Your task to perform on an android device: open app "Move to iOS" Image 0: 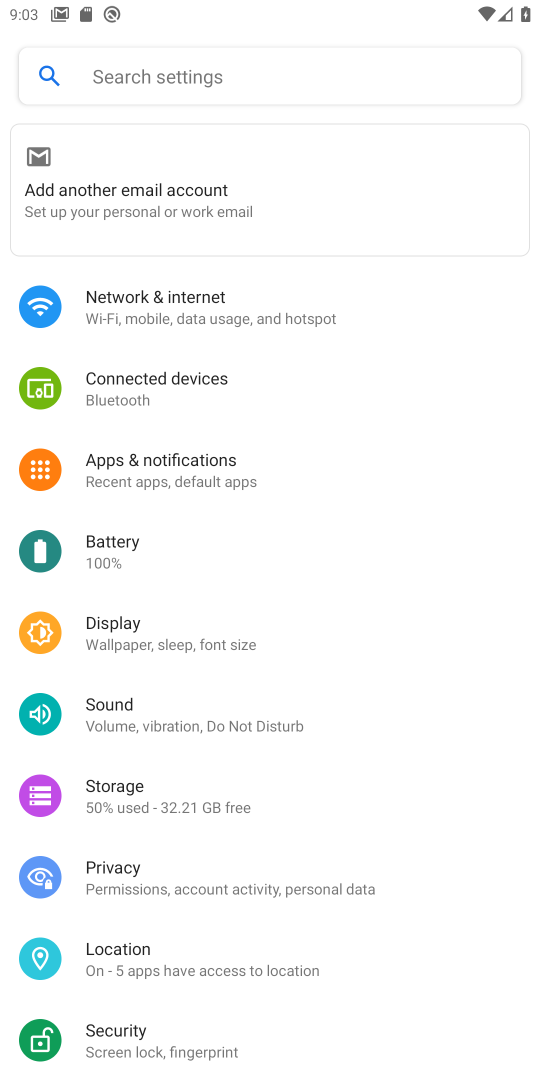
Step 0: press back button
Your task to perform on an android device: open app "Move to iOS" Image 1: 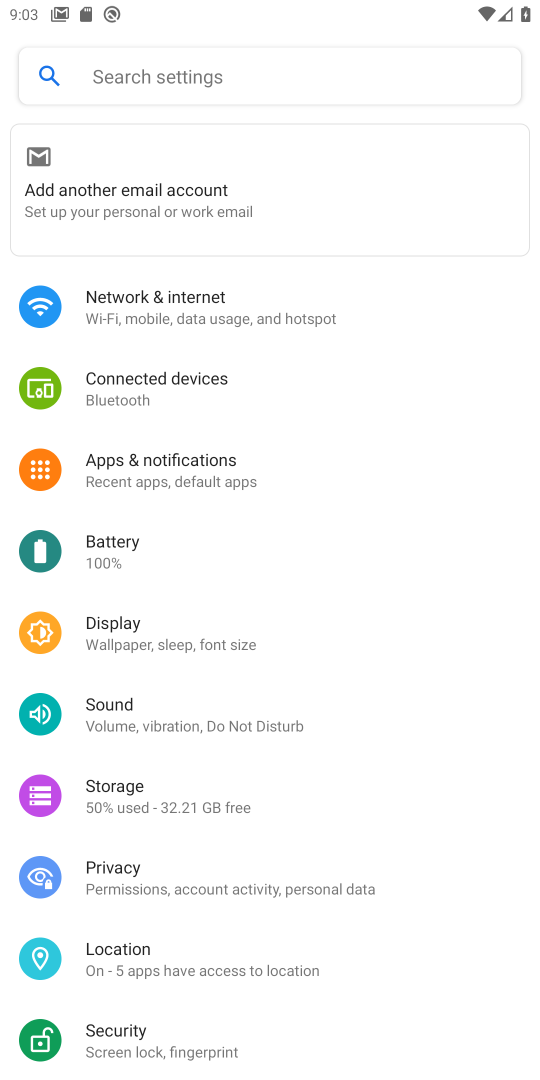
Step 1: press back button
Your task to perform on an android device: open app "Move to iOS" Image 2: 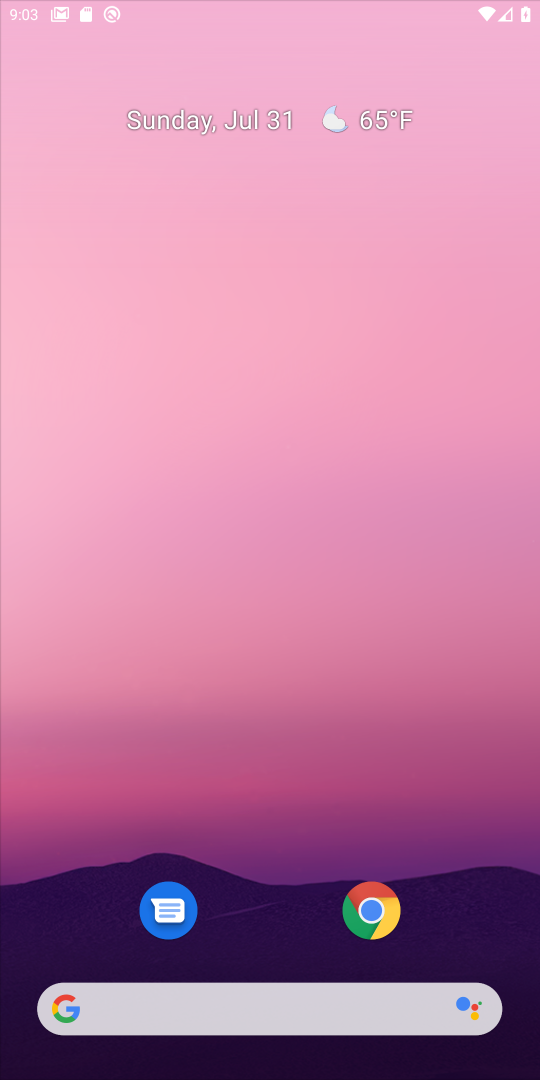
Step 2: press back button
Your task to perform on an android device: open app "Move to iOS" Image 3: 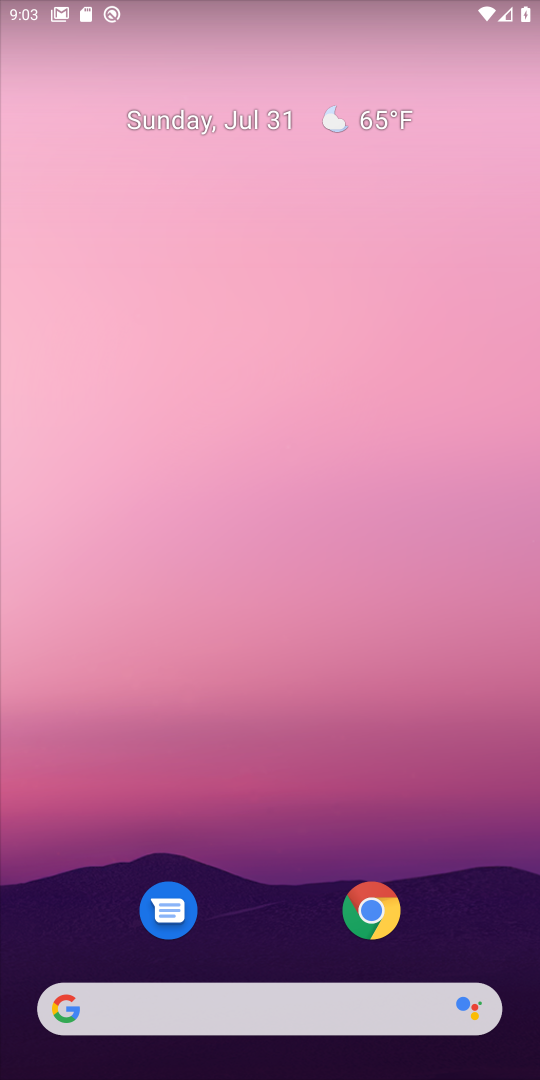
Step 3: drag from (350, 920) to (350, 301)
Your task to perform on an android device: open app "Move to iOS" Image 4: 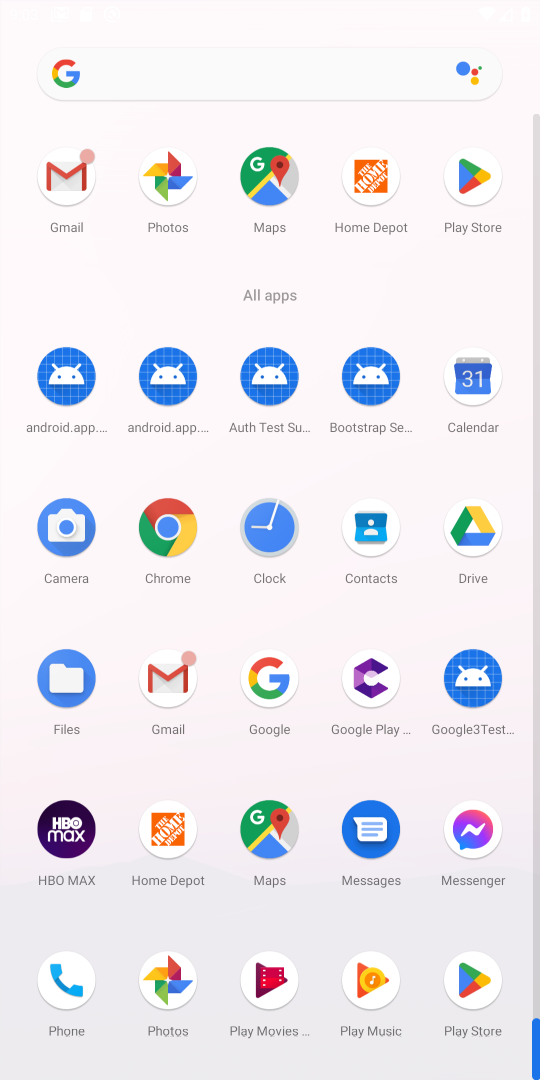
Step 4: drag from (178, 963) to (159, 371)
Your task to perform on an android device: open app "Move to iOS" Image 5: 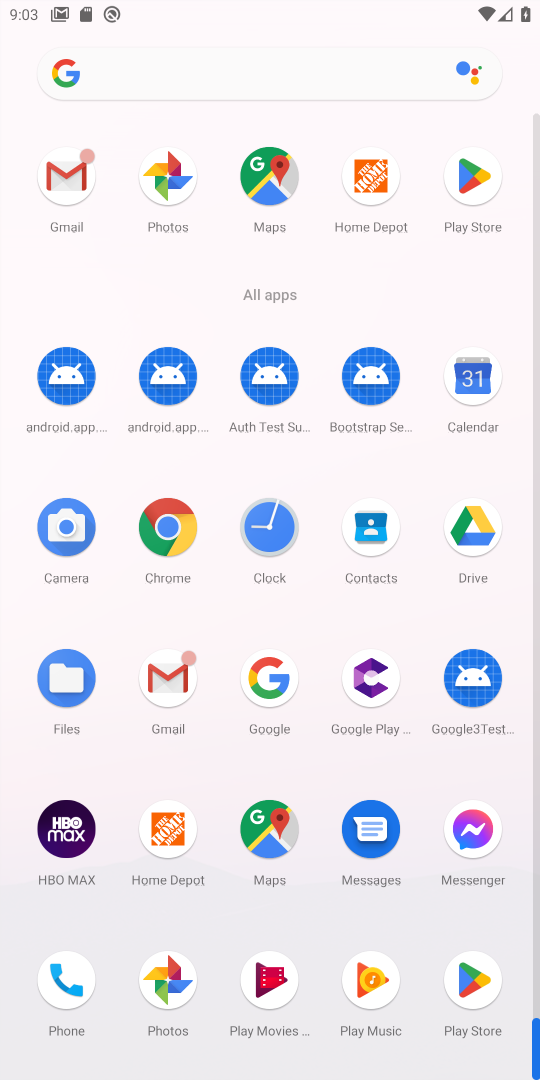
Step 5: click (464, 191)
Your task to perform on an android device: open app "Move to iOS" Image 6: 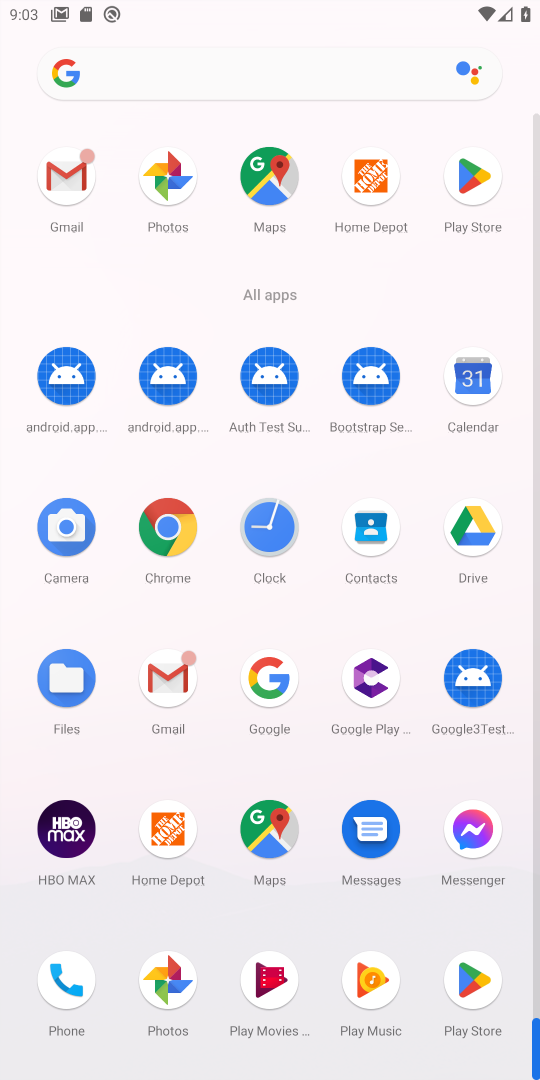
Step 6: click (464, 190)
Your task to perform on an android device: open app "Move to iOS" Image 7: 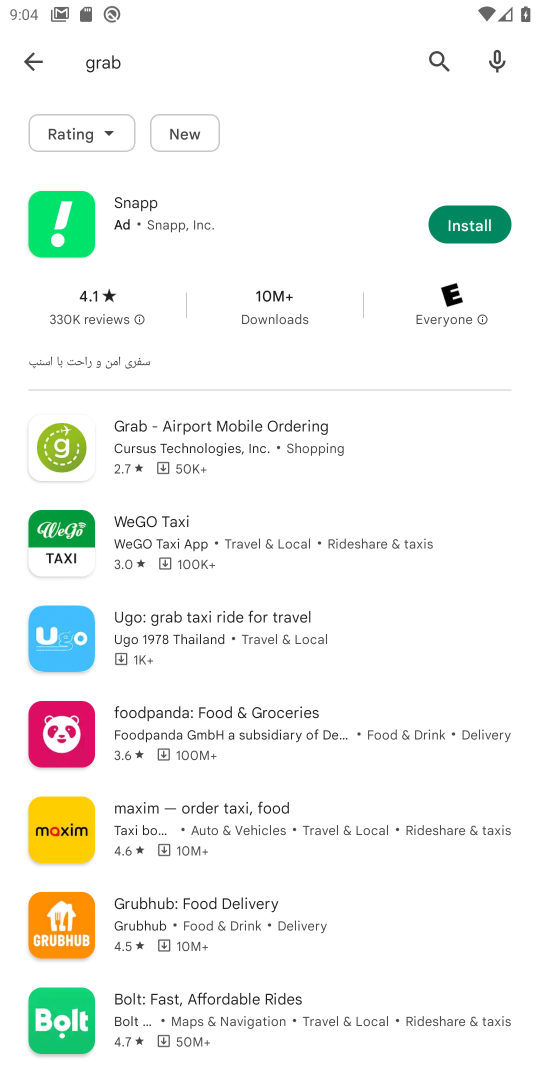
Step 7: click (31, 67)
Your task to perform on an android device: open app "Move to iOS" Image 8: 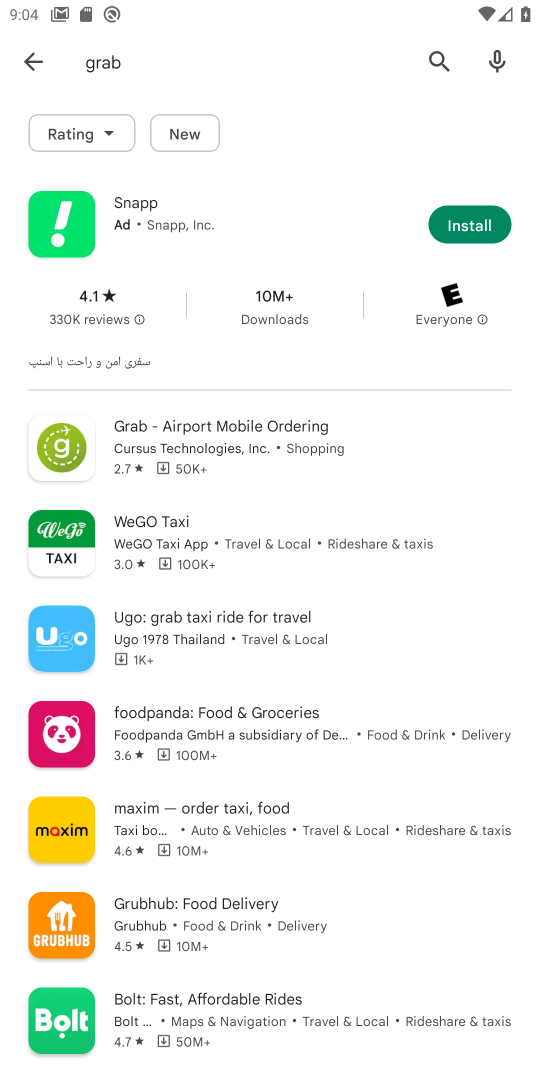
Step 8: click (35, 67)
Your task to perform on an android device: open app "Move to iOS" Image 9: 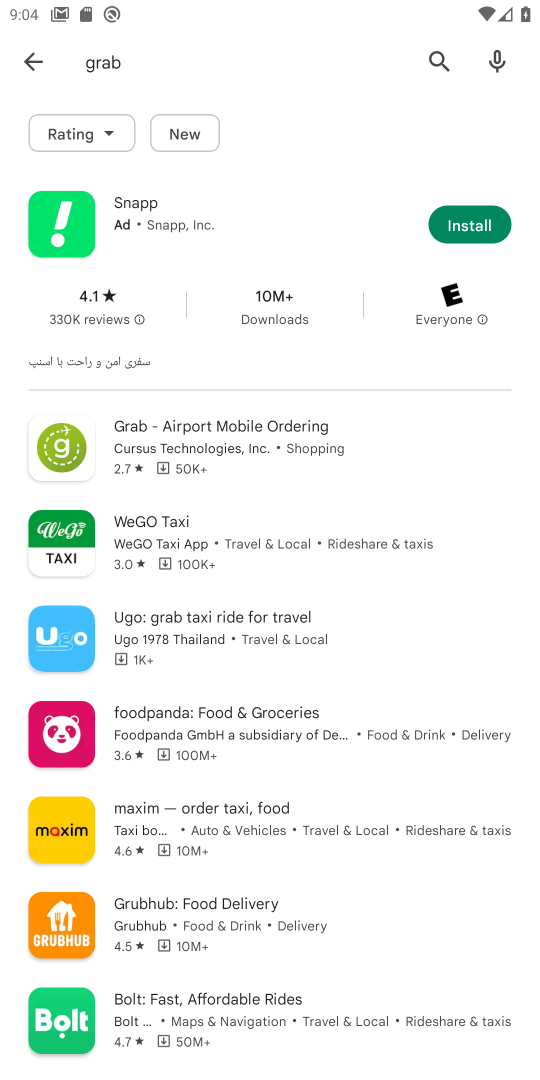
Step 9: click (25, 60)
Your task to perform on an android device: open app "Move to iOS" Image 10: 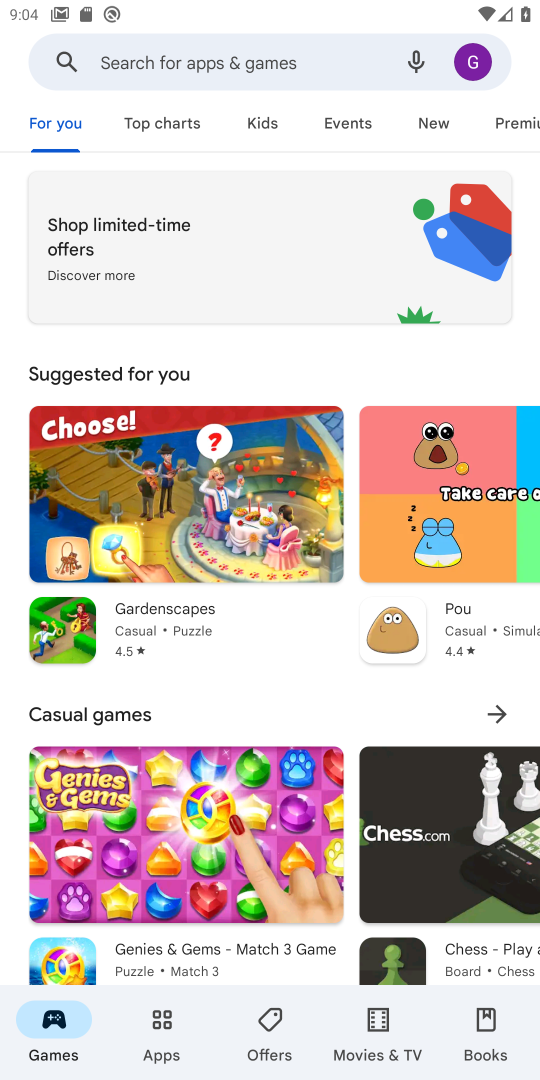
Step 10: click (124, 64)
Your task to perform on an android device: open app "Move to iOS" Image 11: 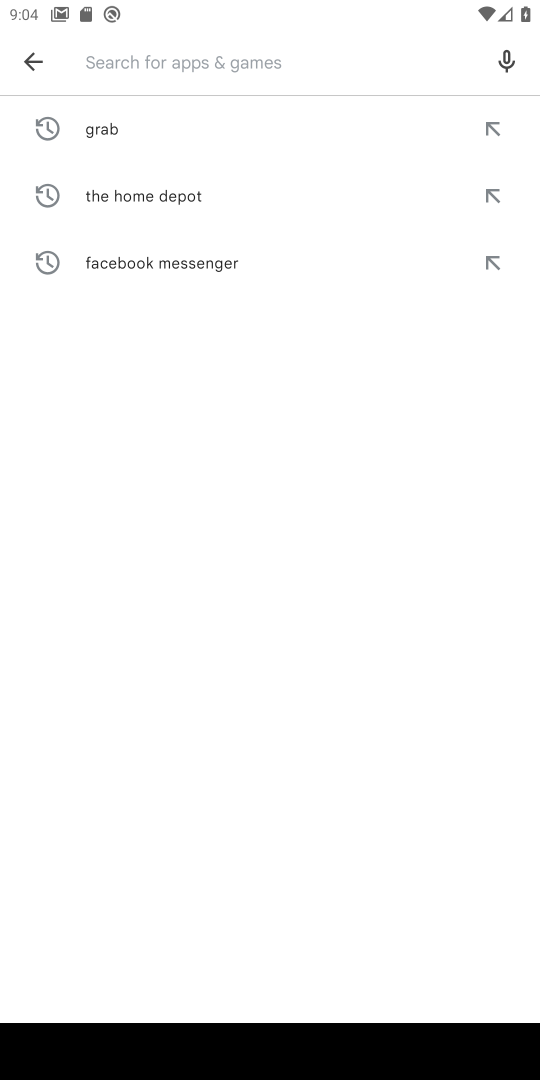
Step 11: type "Move to iOS"
Your task to perform on an android device: open app "Move to iOS" Image 12: 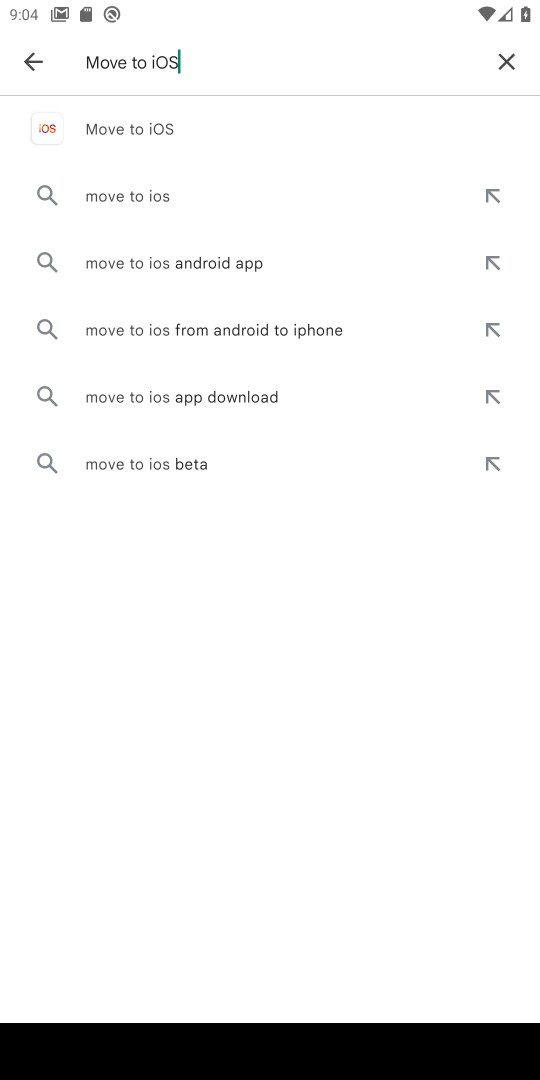
Step 12: click (126, 130)
Your task to perform on an android device: open app "Move to iOS" Image 13: 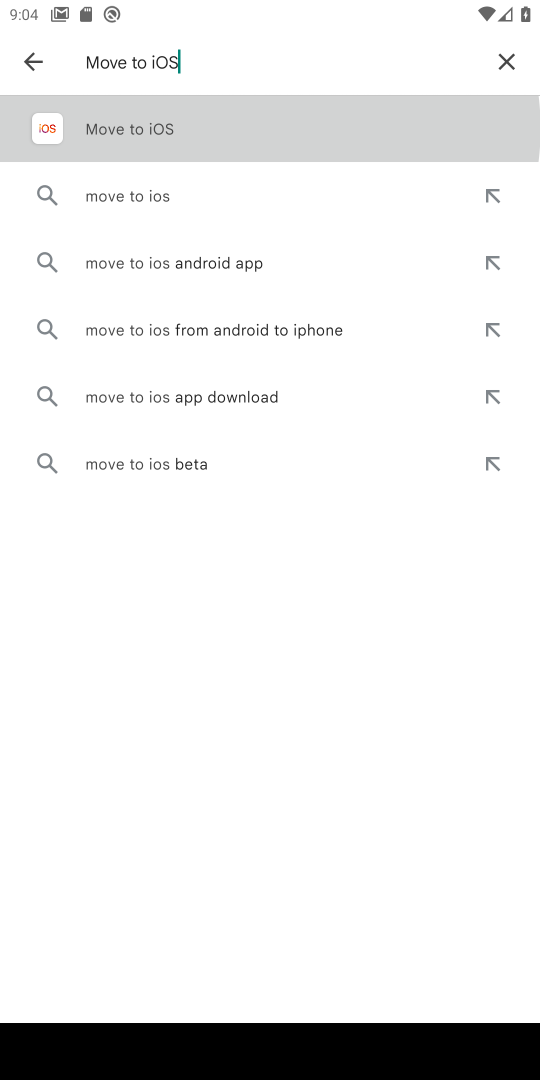
Step 13: click (126, 130)
Your task to perform on an android device: open app "Move to iOS" Image 14: 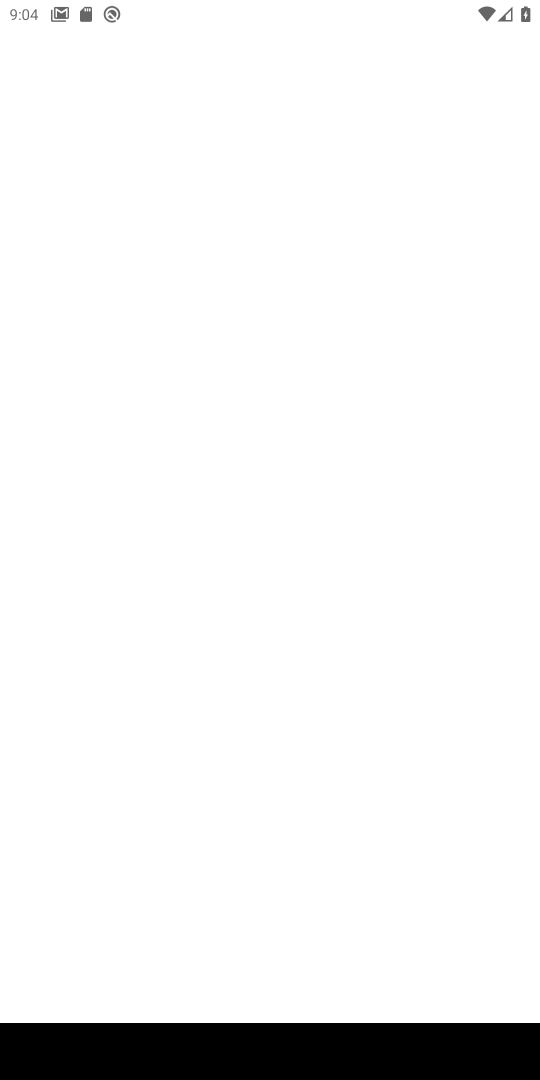
Step 14: click (129, 132)
Your task to perform on an android device: open app "Move to iOS" Image 15: 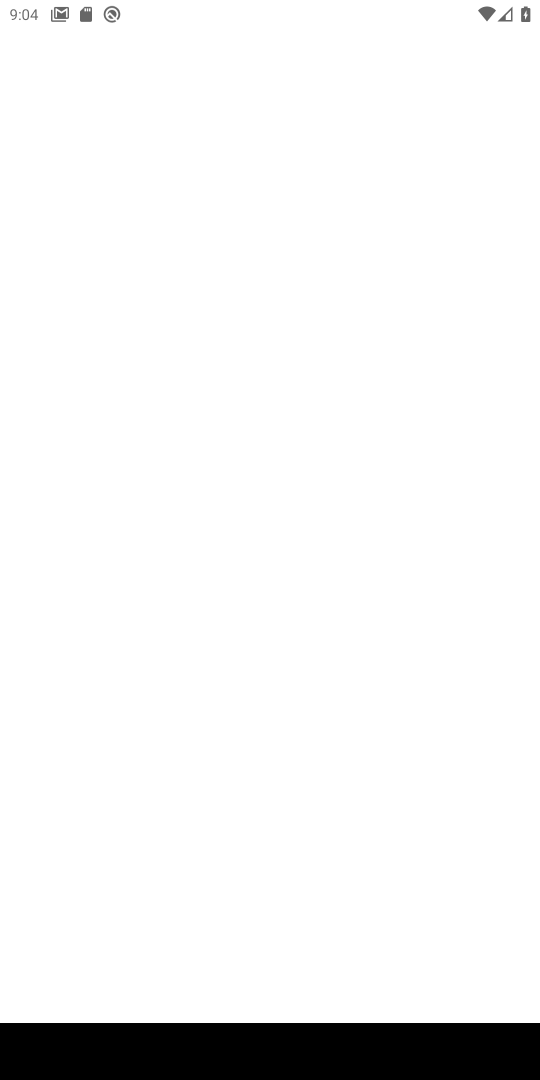
Step 15: click (129, 132)
Your task to perform on an android device: open app "Move to iOS" Image 16: 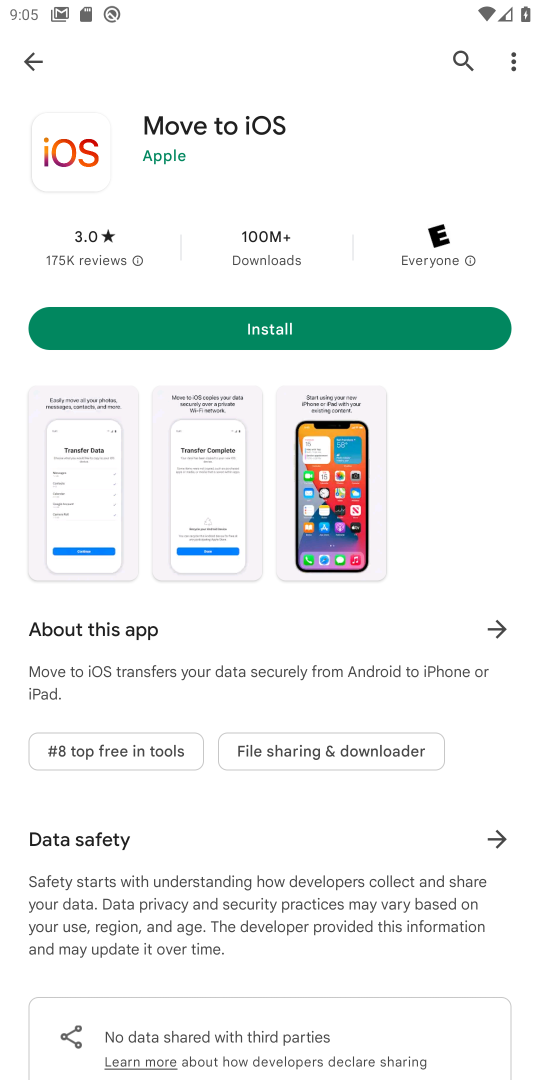
Step 16: click (260, 325)
Your task to perform on an android device: open app "Move to iOS" Image 17: 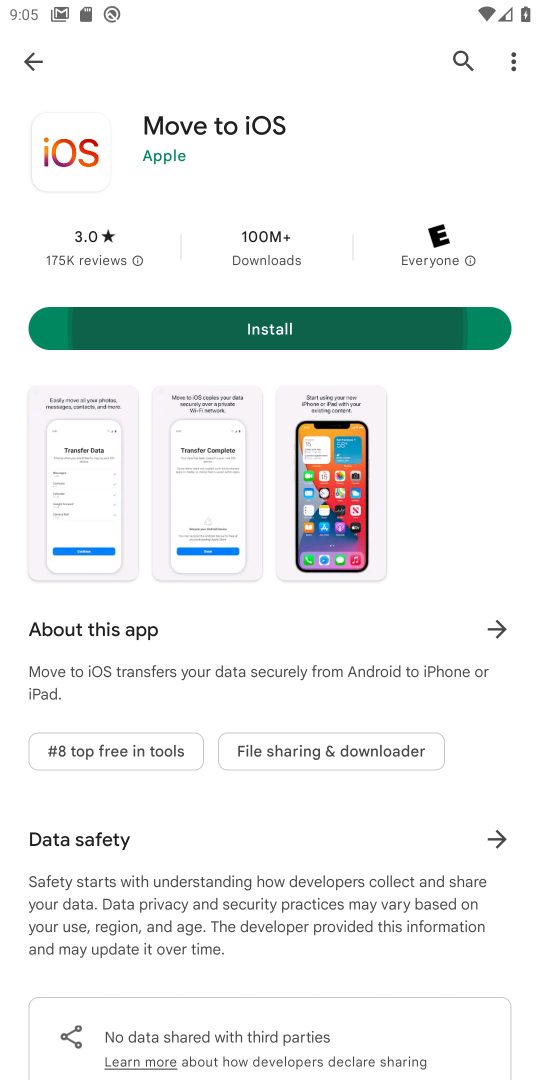
Step 17: click (260, 323)
Your task to perform on an android device: open app "Move to iOS" Image 18: 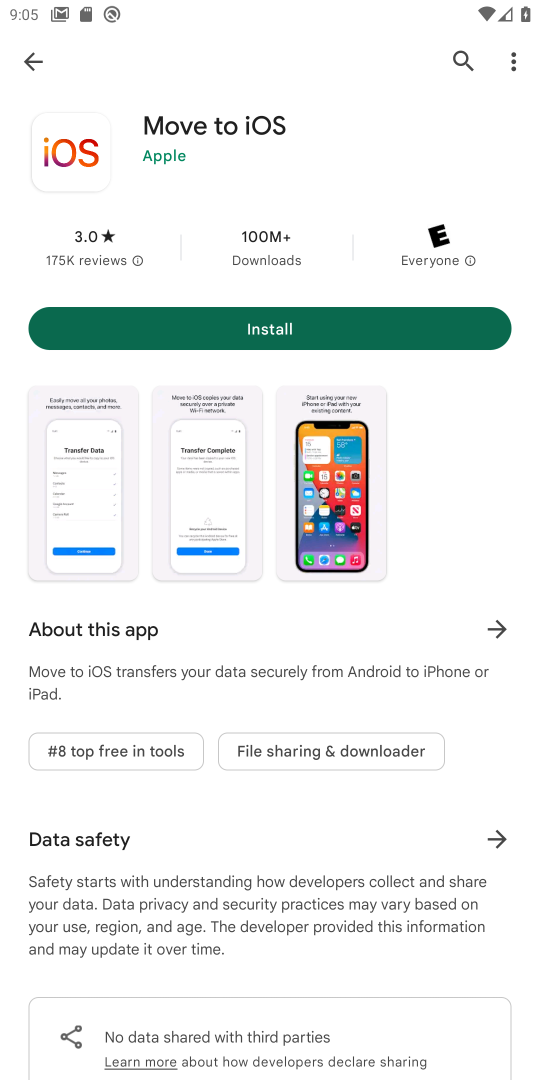
Step 18: click (260, 322)
Your task to perform on an android device: open app "Move to iOS" Image 19: 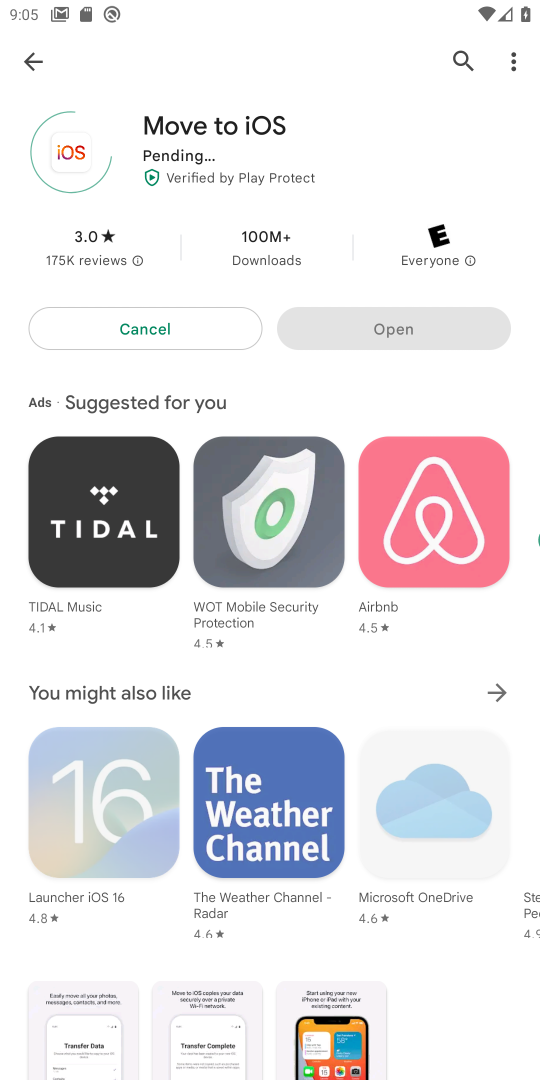
Step 19: click (267, 330)
Your task to perform on an android device: open app "Move to iOS" Image 20: 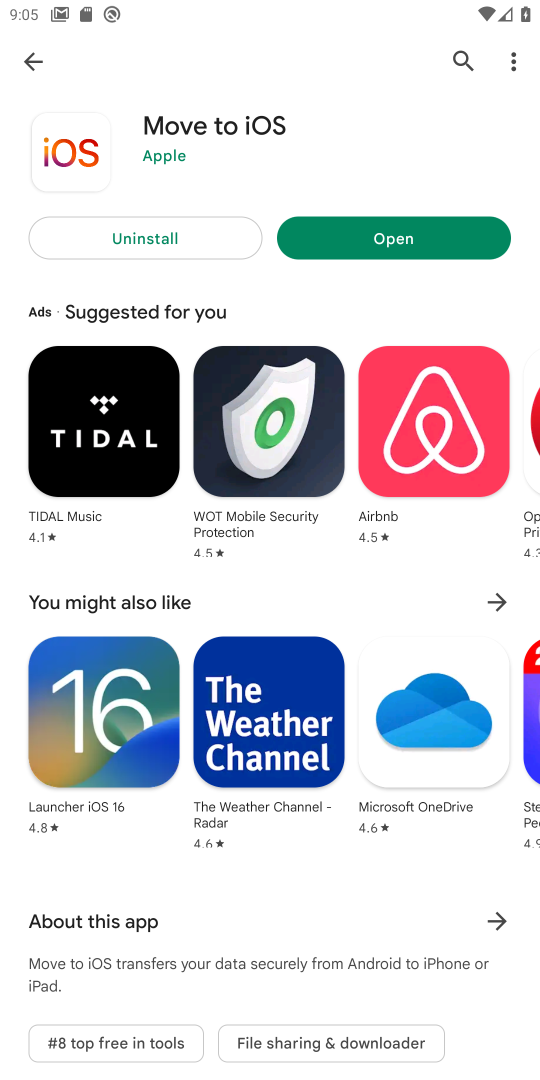
Step 20: click (420, 245)
Your task to perform on an android device: open app "Move to iOS" Image 21: 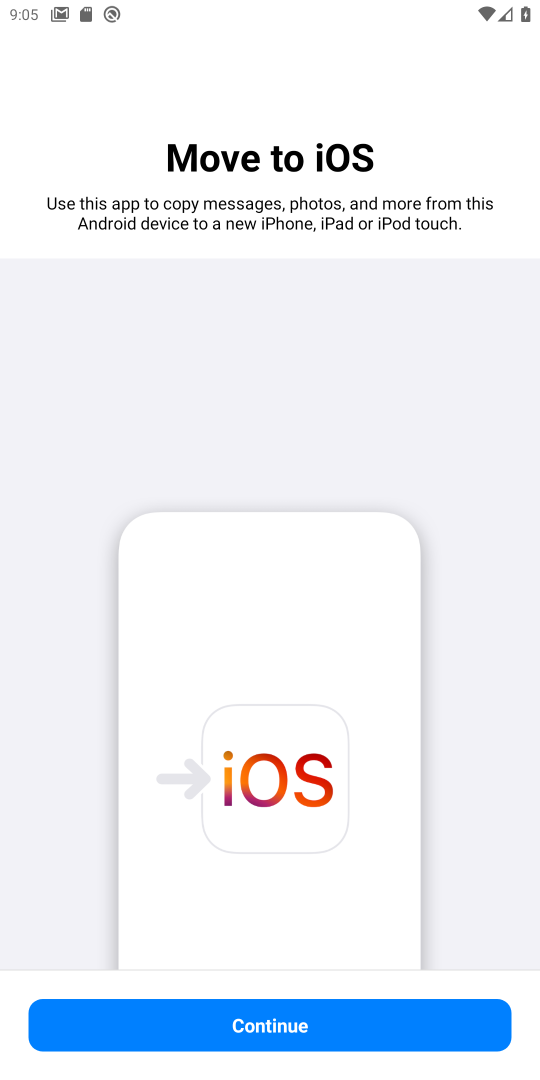
Step 21: click (265, 1031)
Your task to perform on an android device: open app "Move to iOS" Image 22: 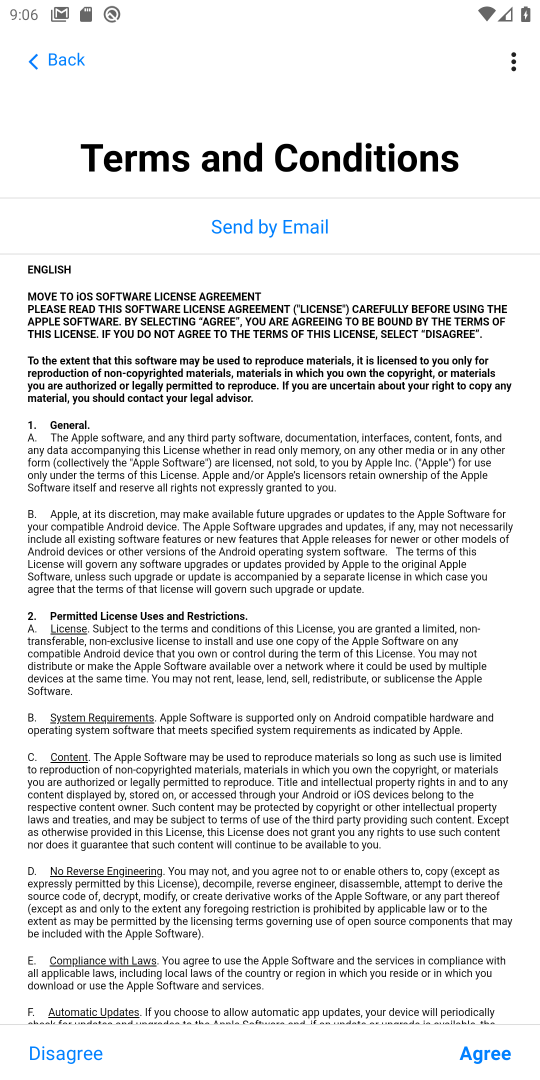
Step 22: click (486, 1054)
Your task to perform on an android device: open app "Move to iOS" Image 23: 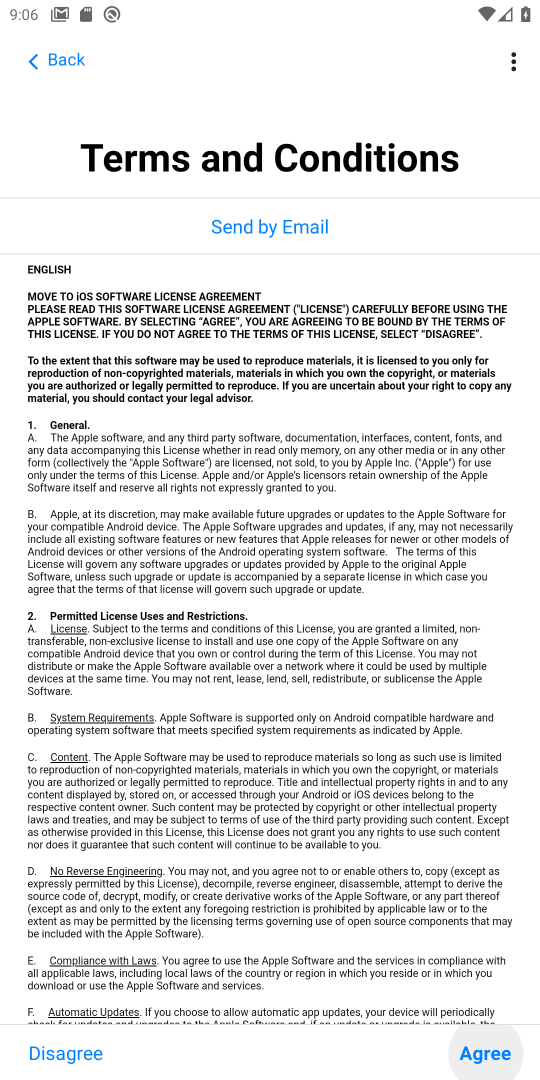
Step 23: click (485, 1053)
Your task to perform on an android device: open app "Move to iOS" Image 24: 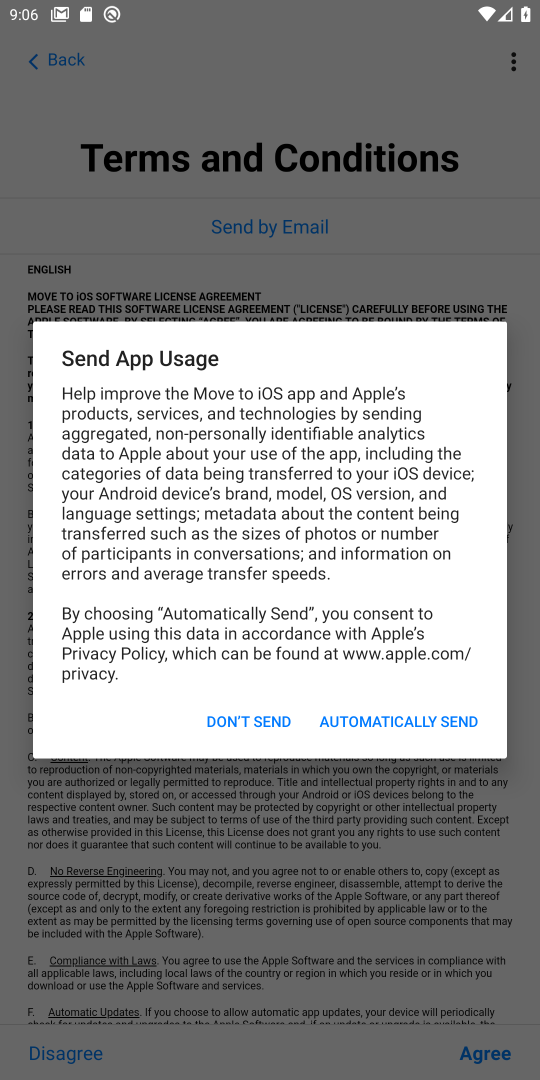
Step 24: click (383, 697)
Your task to perform on an android device: open app "Move to iOS" Image 25: 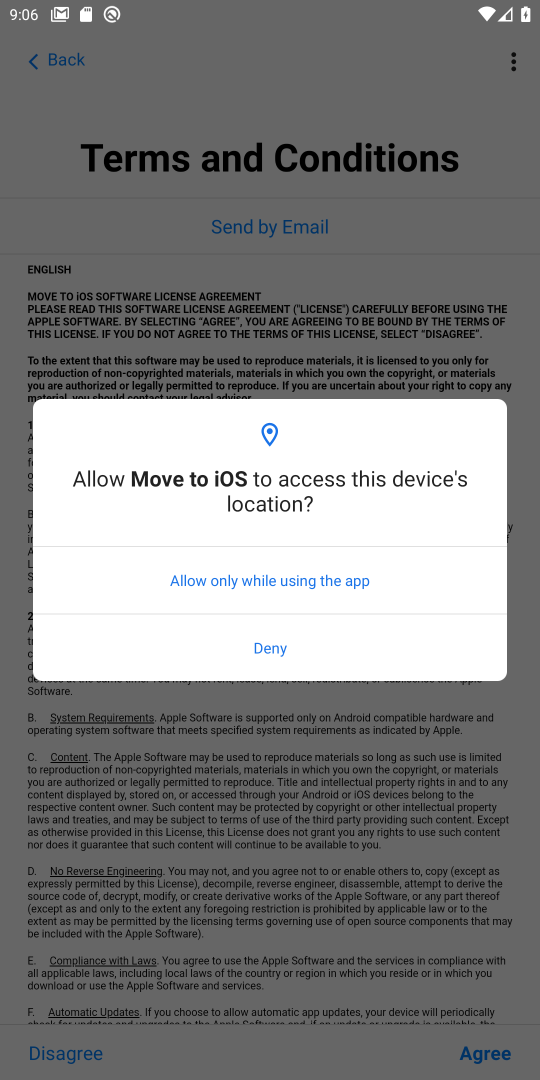
Step 25: click (259, 579)
Your task to perform on an android device: open app "Move to iOS" Image 26: 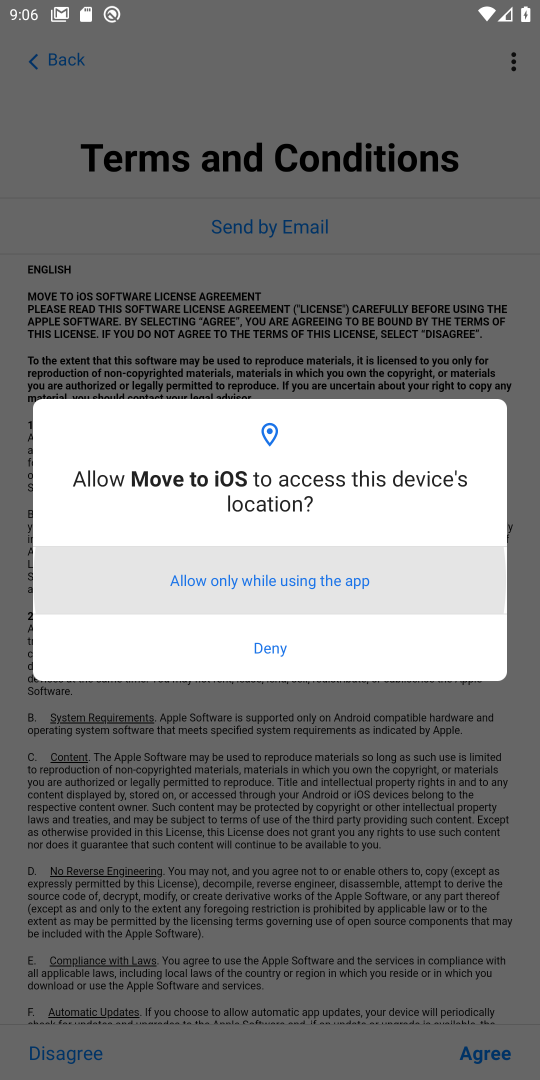
Step 26: click (261, 576)
Your task to perform on an android device: open app "Move to iOS" Image 27: 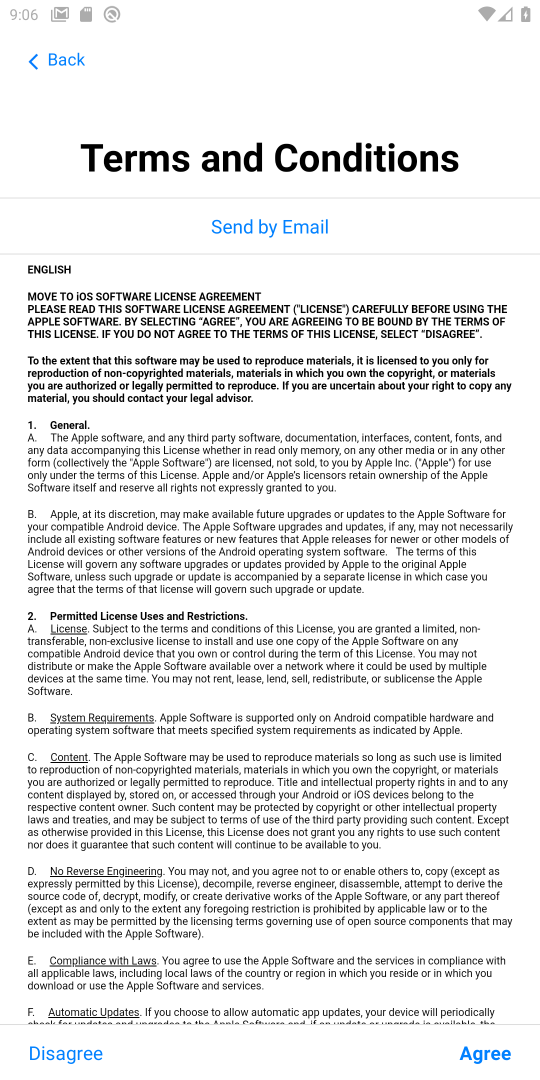
Step 27: click (277, 581)
Your task to perform on an android device: open app "Move to iOS" Image 28: 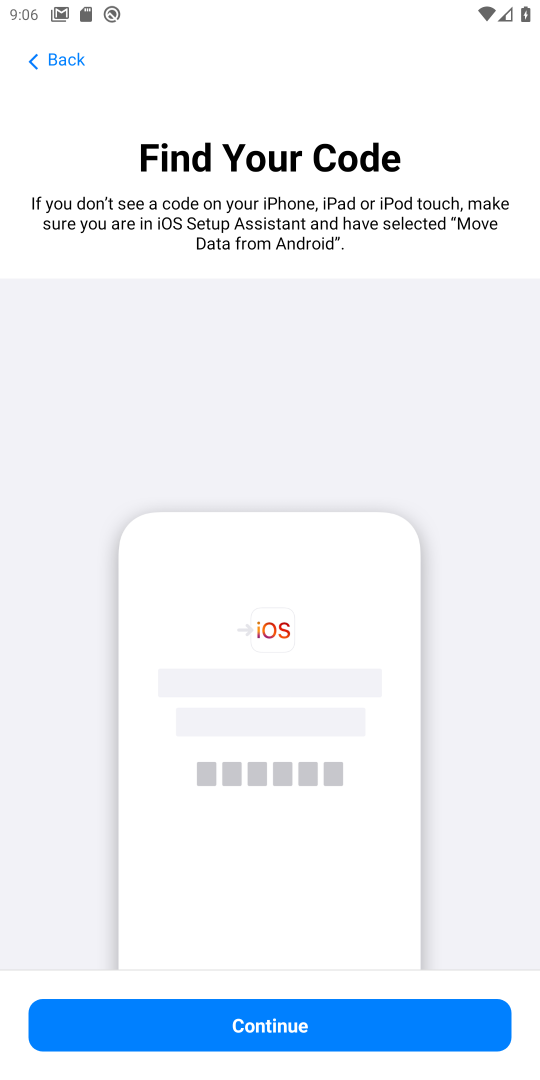
Step 28: click (314, 1027)
Your task to perform on an android device: open app "Move to iOS" Image 29: 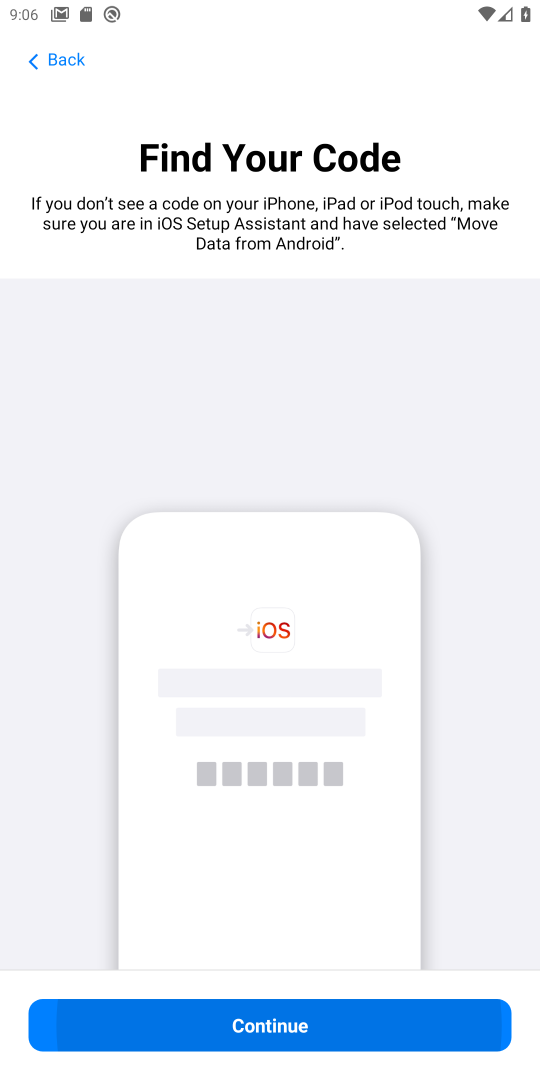
Step 29: click (318, 1023)
Your task to perform on an android device: open app "Move to iOS" Image 30: 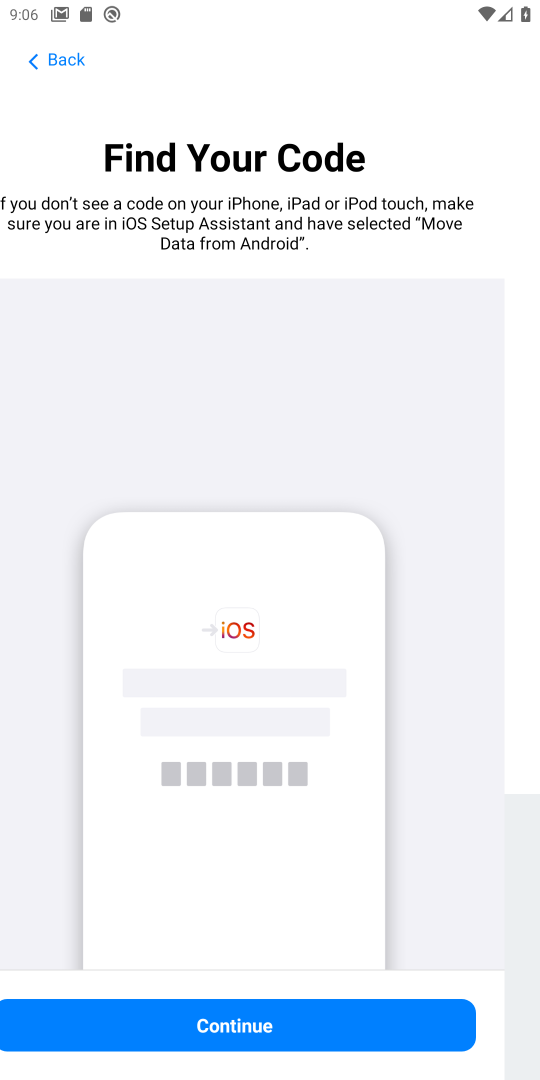
Step 30: click (318, 1023)
Your task to perform on an android device: open app "Move to iOS" Image 31: 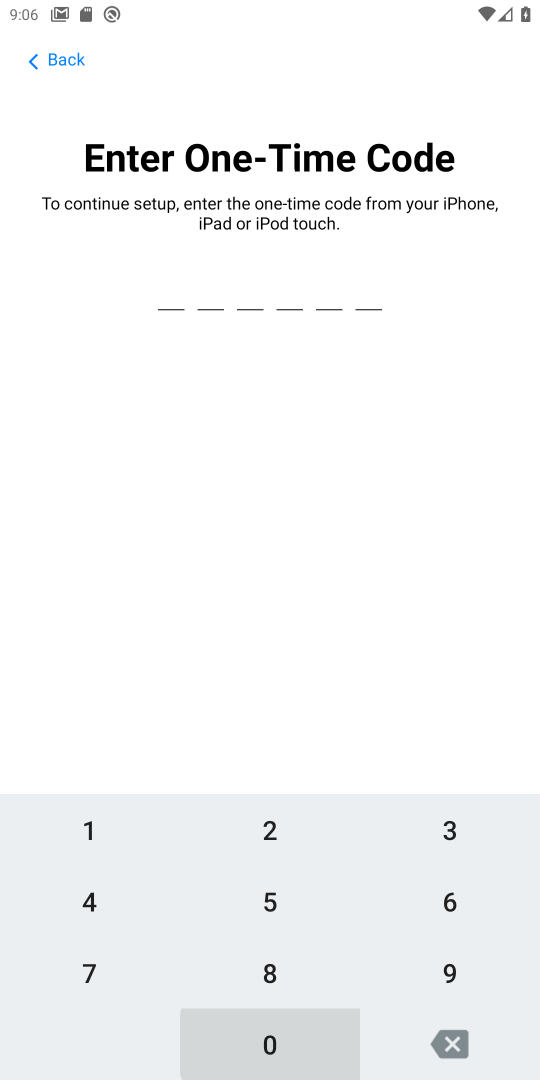
Step 31: click (322, 1027)
Your task to perform on an android device: open app "Move to iOS" Image 32: 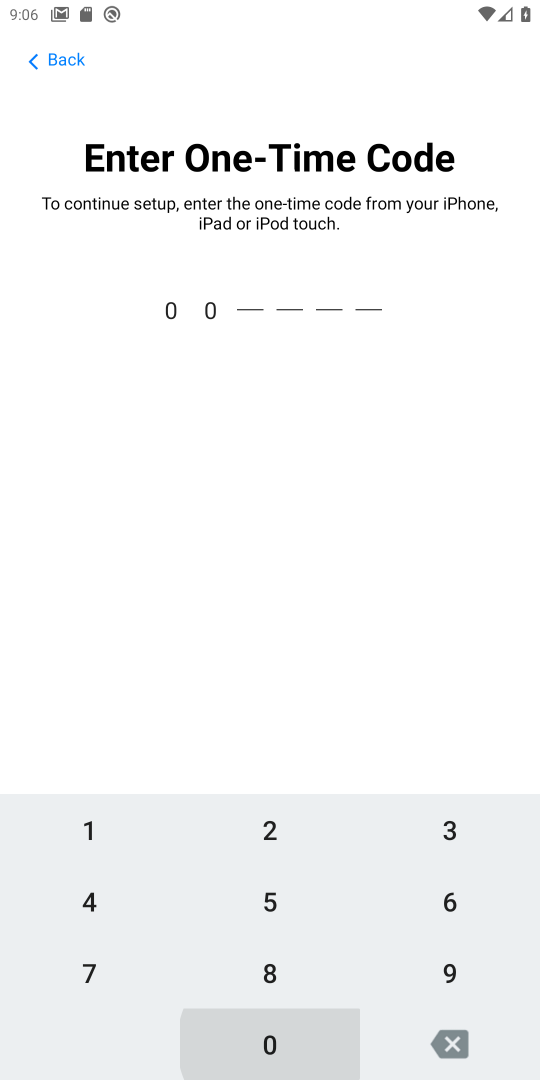
Step 32: click (324, 1026)
Your task to perform on an android device: open app "Move to iOS" Image 33: 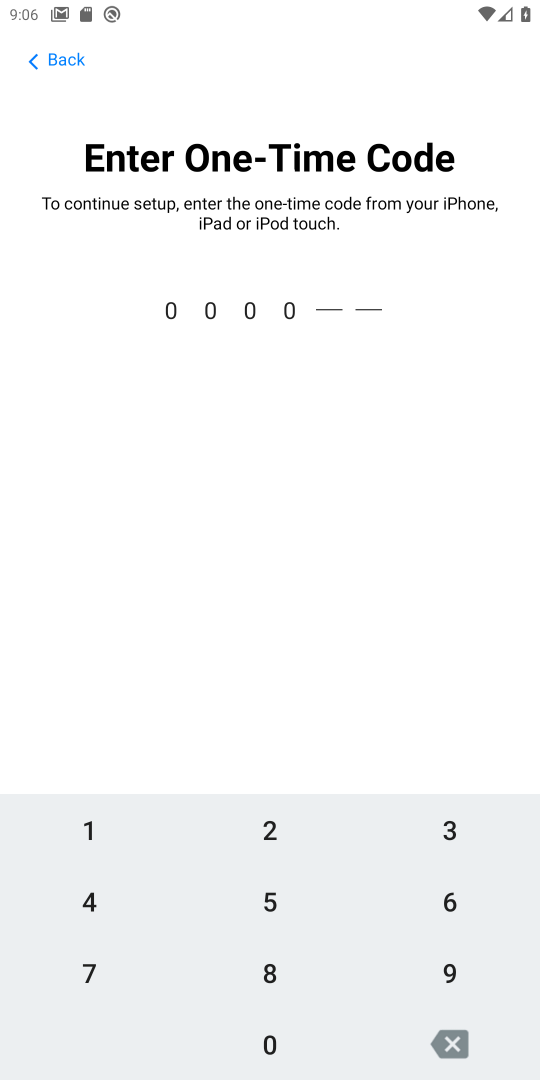
Step 33: task complete